Your task to perform on an android device: open a new tab in the chrome app Image 0: 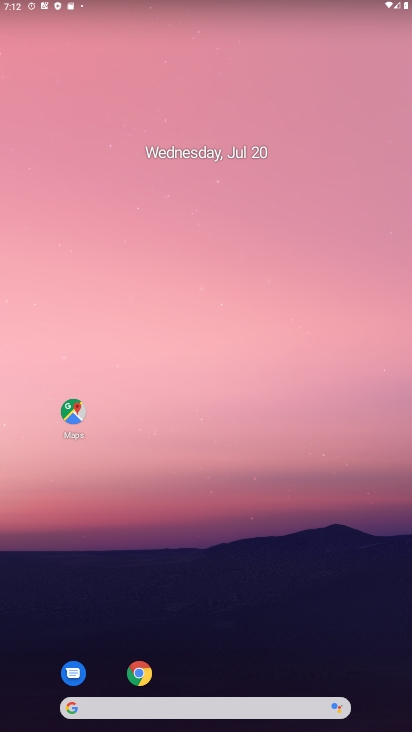
Step 0: drag from (368, 654) to (109, 0)
Your task to perform on an android device: open a new tab in the chrome app Image 1: 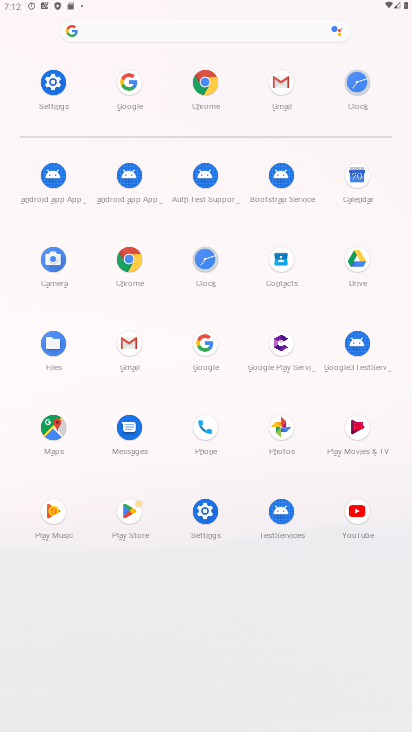
Step 1: click (131, 270)
Your task to perform on an android device: open a new tab in the chrome app Image 2: 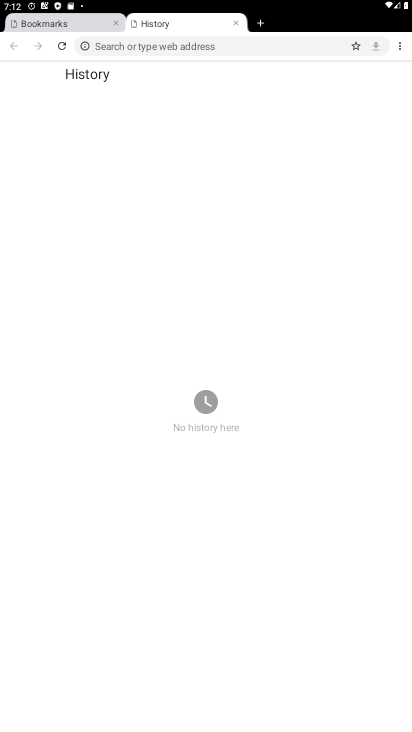
Step 2: click (256, 22)
Your task to perform on an android device: open a new tab in the chrome app Image 3: 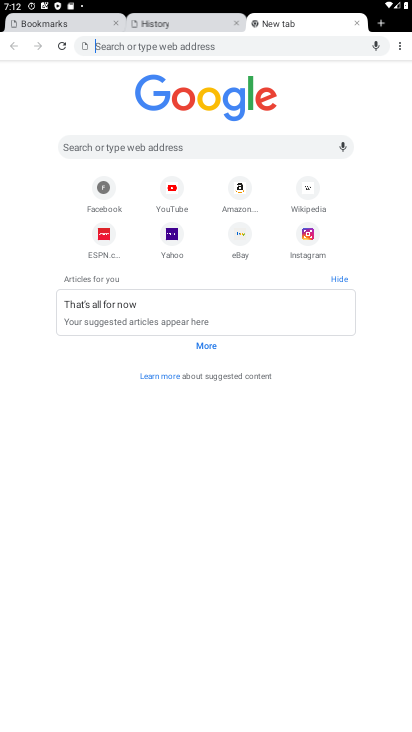
Step 3: task complete